Your task to perform on an android device: Search for "amazon basics triple a" on walmart.com, select the first entry, and add it to the cart. Image 0: 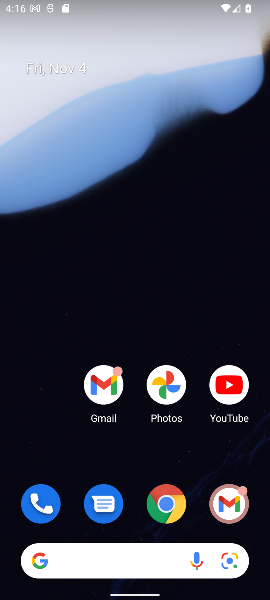
Step 0: click (162, 509)
Your task to perform on an android device: Search for "amazon basics triple a" on walmart.com, select the first entry, and add it to the cart. Image 1: 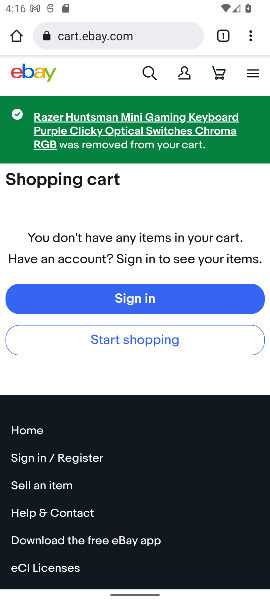
Step 1: drag from (152, 595) to (210, 596)
Your task to perform on an android device: Search for "amazon basics triple a" on walmart.com, select the first entry, and add it to the cart. Image 2: 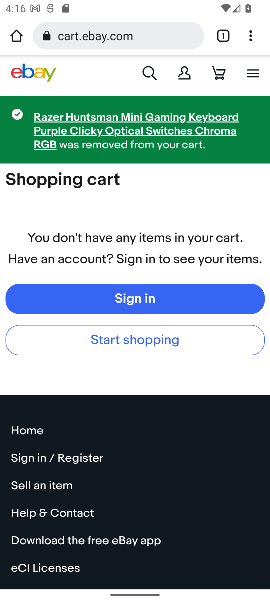
Step 2: click (132, 74)
Your task to perform on an android device: Search for "amazon basics triple a" on walmart.com, select the first entry, and add it to the cart. Image 3: 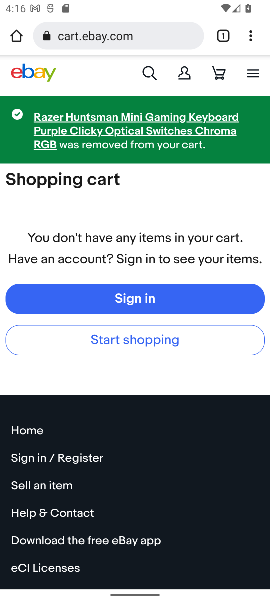
Step 3: click (136, 81)
Your task to perform on an android device: Search for "amazon basics triple a" on walmart.com, select the first entry, and add it to the cart. Image 4: 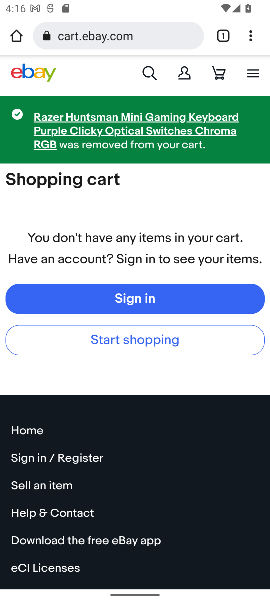
Step 4: click (78, 32)
Your task to perform on an android device: Search for "amazon basics triple a" on walmart.com, select the first entry, and add it to the cart. Image 5: 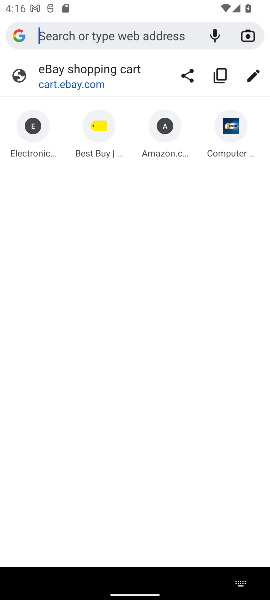
Step 5: type "walmart.com"
Your task to perform on an android device: Search for "amazon basics triple a" on walmart.com, select the first entry, and add it to the cart. Image 6: 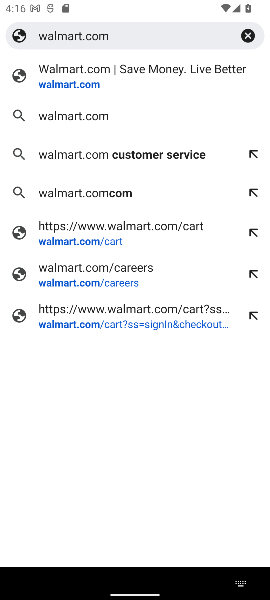
Step 6: click (57, 85)
Your task to perform on an android device: Search for "amazon basics triple a" on walmart.com, select the first entry, and add it to the cart. Image 7: 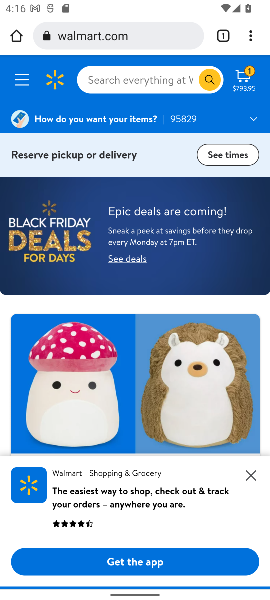
Step 7: click (128, 72)
Your task to perform on an android device: Search for "amazon basics triple a" on walmart.com, select the first entry, and add it to the cart. Image 8: 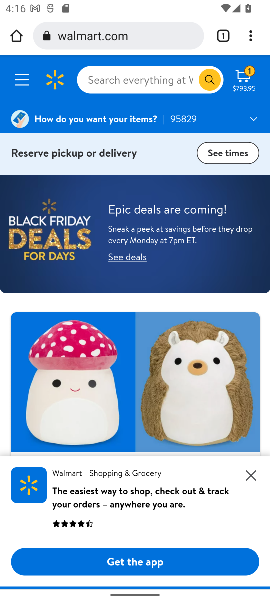
Step 8: click (126, 82)
Your task to perform on an android device: Search for "amazon basics triple a" on walmart.com, select the first entry, and add it to the cart. Image 9: 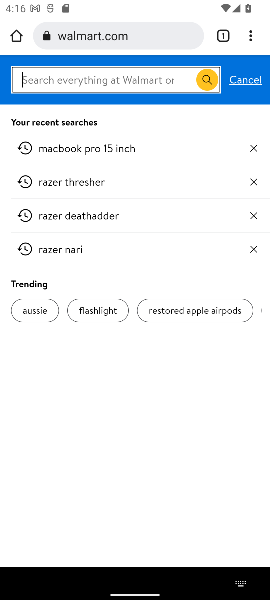
Step 9: type "amazon basics triple "
Your task to perform on an android device: Search for "amazon basics triple a" on walmart.com, select the first entry, and add it to the cart. Image 10: 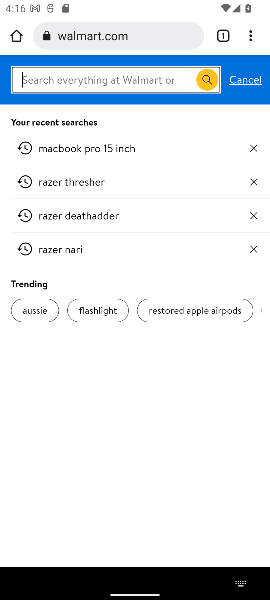
Step 10: type ""
Your task to perform on an android device: Search for "amazon basics triple a" on walmart.com, select the first entry, and add it to the cart. Image 11: 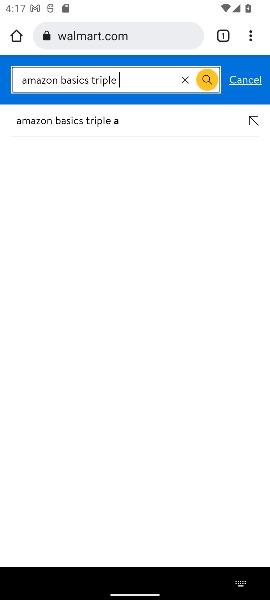
Step 11: click (80, 114)
Your task to perform on an android device: Search for "amazon basics triple a" on walmart.com, select the first entry, and add it to the cart. Image 12: 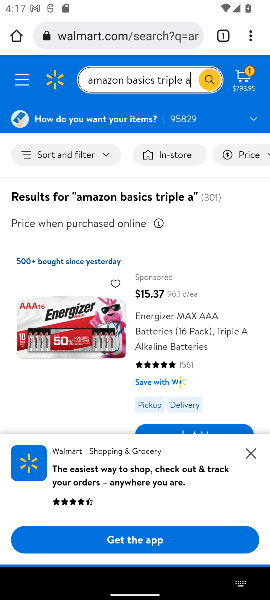
Step 12: task complete